Your task to perform on an android device: open chrome and create a bookmark for the current page Image 0: 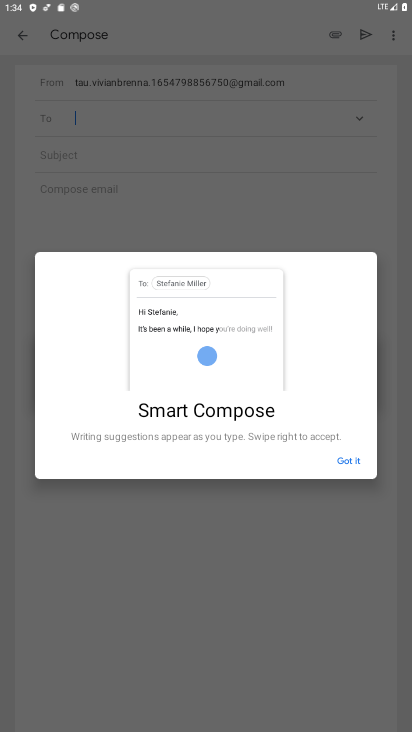
Step 0: click (142, 657)
Your task to perform on an android device: open chrome and create a bookmark for the current page Image 1: 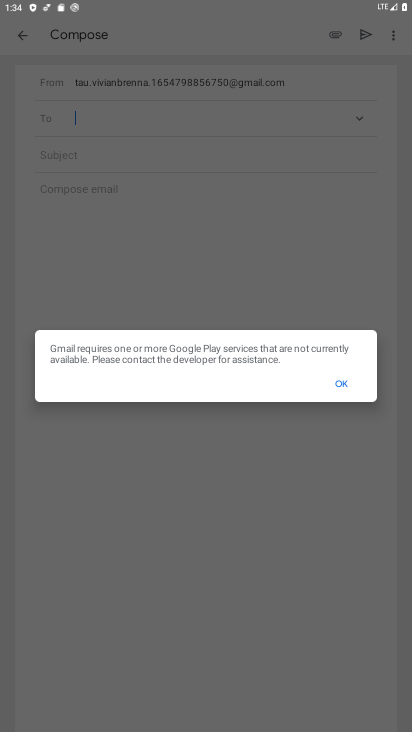
Step 1: press home button
Your task to perform on an android device: open chrome and create a bookmark for the current page Image 2: 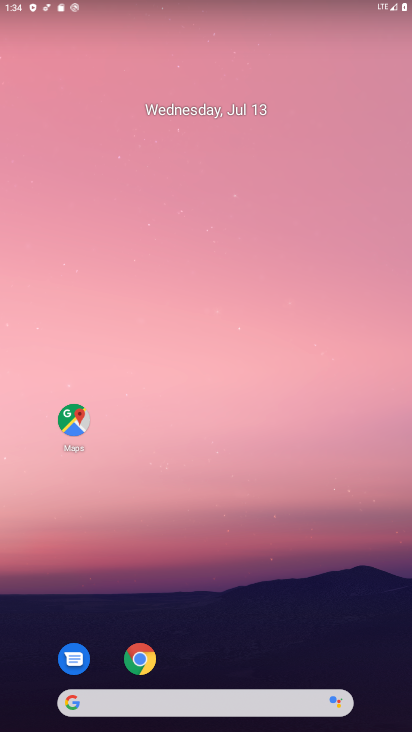
Step 2: click (139, 660)
Your task to perform on an android device: open chrome and create a bookmark for the current page Image 3: 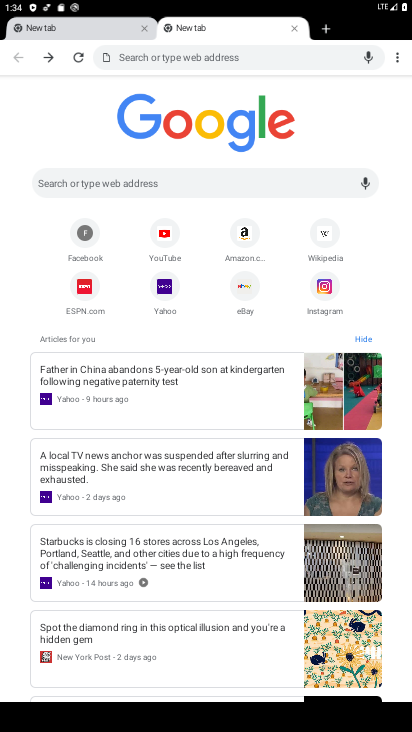
Step 3: click (398, 62)
Your task to perform on an android device: open chrome and create a bookmark for the current page Image 4: 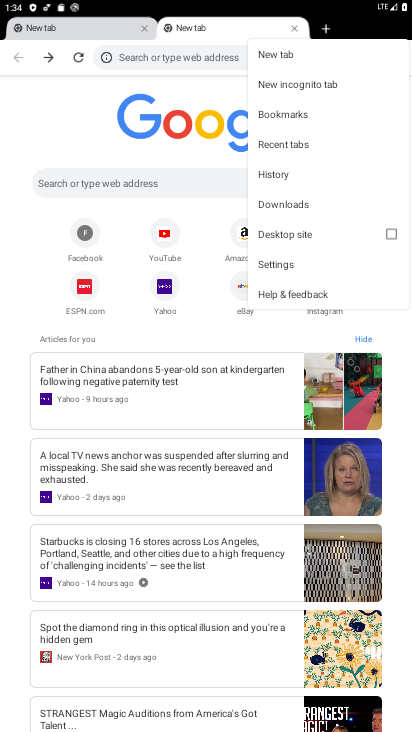
Step 4: click (210, 133)
Your task to perform on an android device: open chrome and create a bookmark for the current page Image 5: 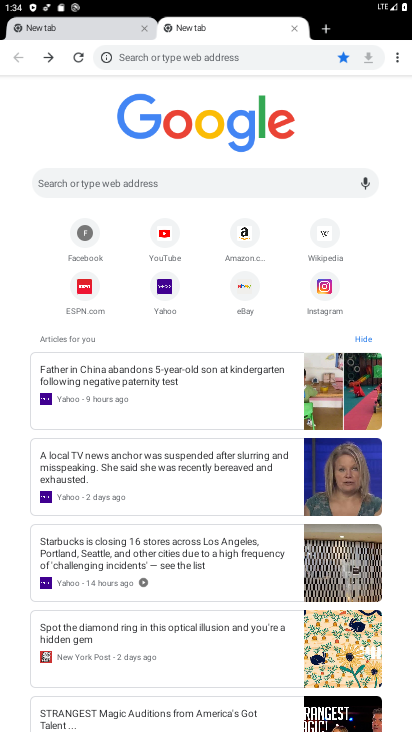
Step 5: task complete